Your task to perform on an android device: turn on javascript in the chrome app Image 0: 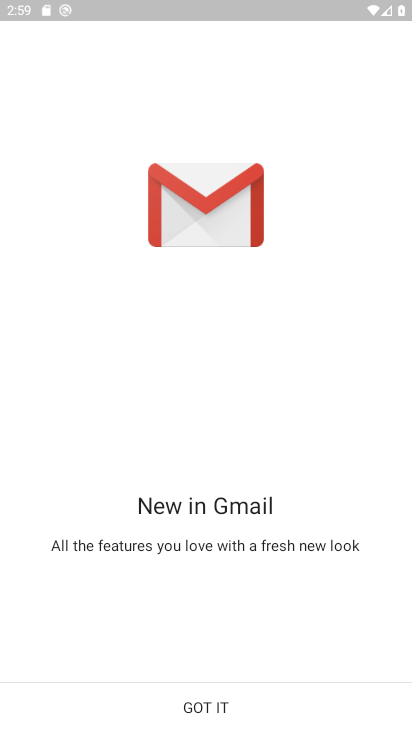
Step 0: press home button
Your task to perform on an android device: turn on javascript in the chrome app Image 1: 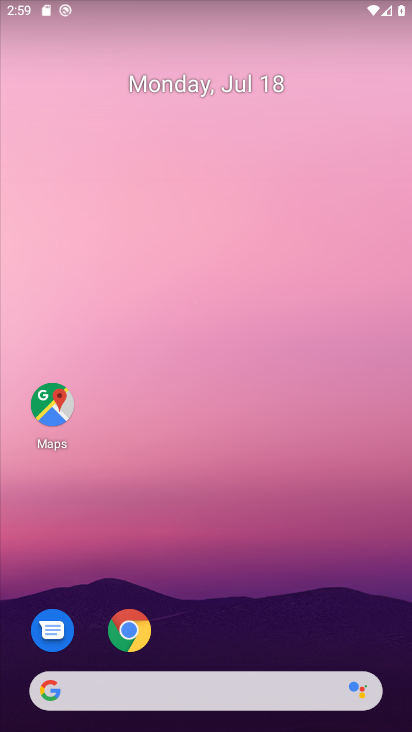
Step 1: click (139, 637)
Your task to perform on an android device: turn on javascript in the chrome app Image 2: 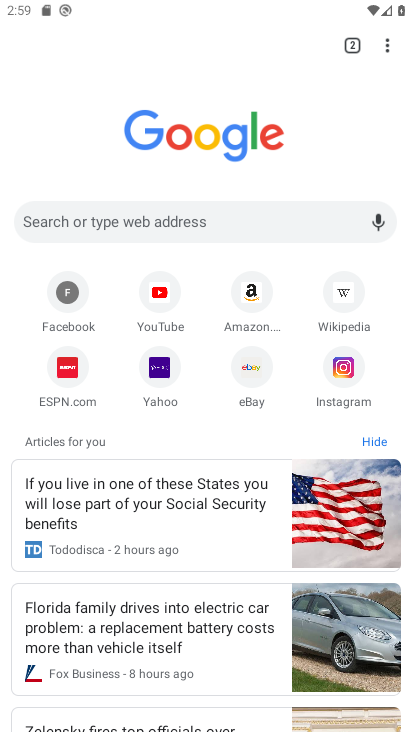
Step 2: click (389, 55)
Your task to perform on an android device: turn on javascript in the chrome app Image 3: 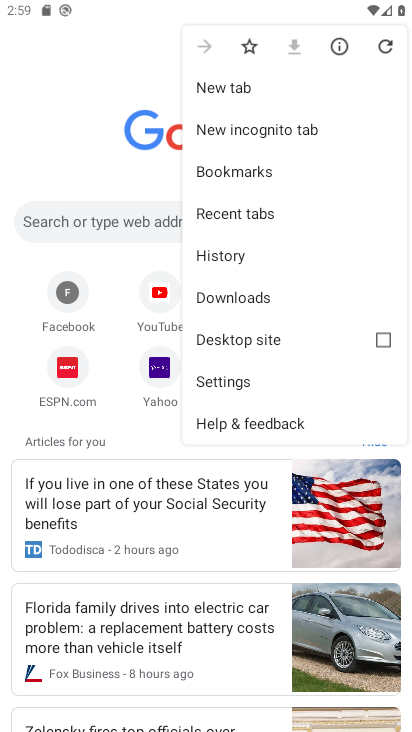
Step 3: click (318, 386)
Your task to perform on an android device: turn on javascript in the chrome app Image 4: 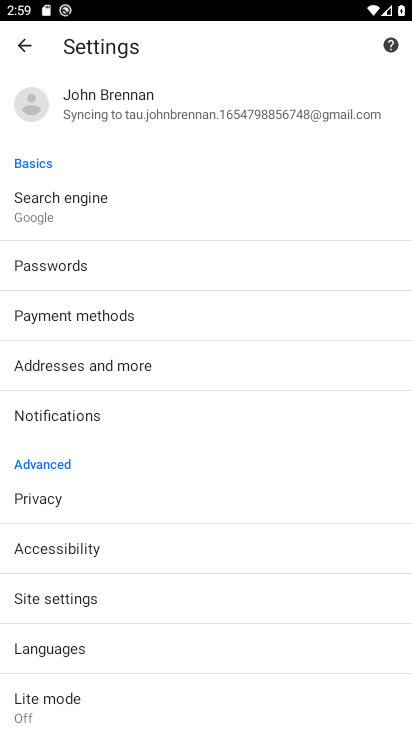
Step 4: click (178, 598)
Your task to perform on an android device: turn on javascript in the chrome app Image 5: 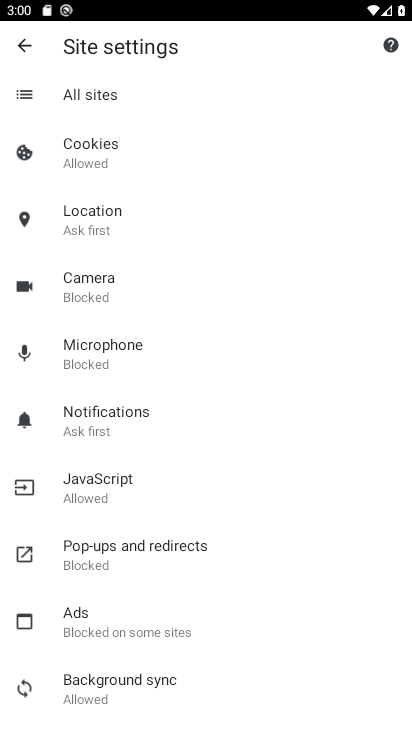
Step 5: click (157, 498)
Your task to perform on an android device: turn on javascript in the chrome app Image 6: 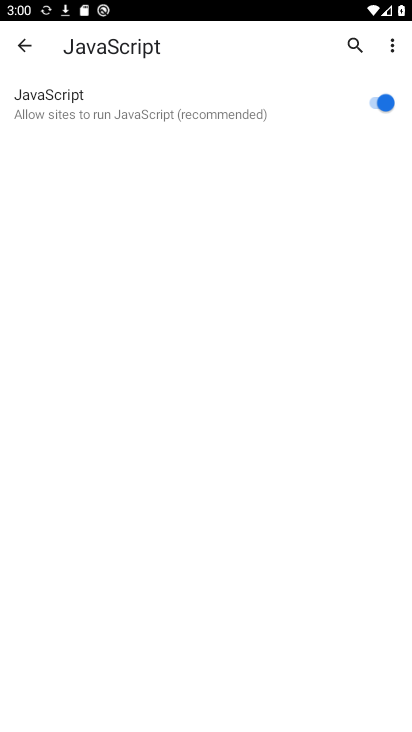
Step 6: task complete